Your task to perform on an android device: What's the weather going to be this weekend? Image 0: 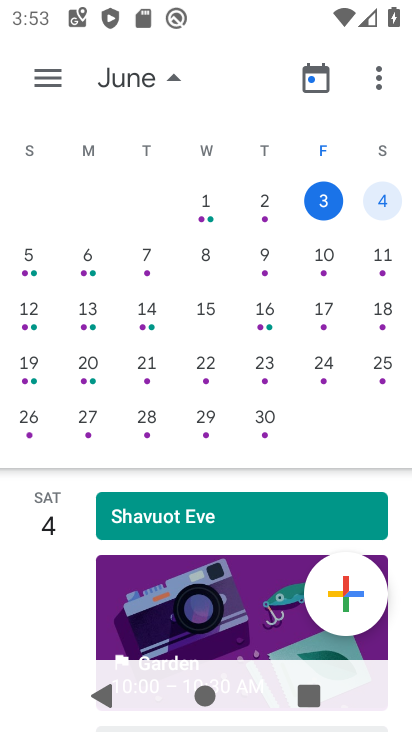
Step 0: press home button
Your task to perform on an android device: What's the weather going to be this weekend? Image 1: 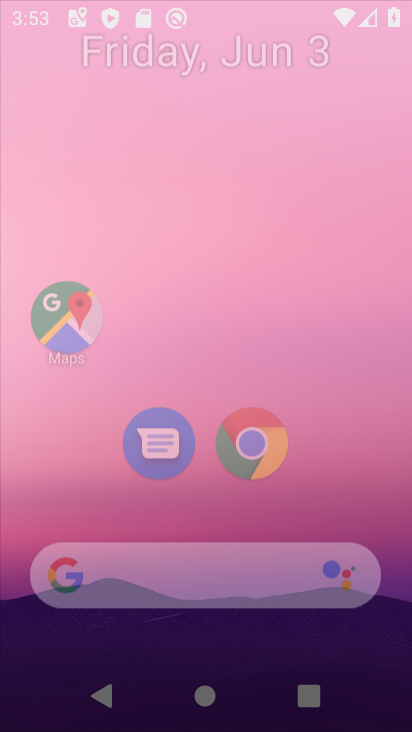
Step 1: drag from (189, 605) to (302, 64)
Your task to perform on an android device: What's the weather going to be this weekend? Image 2: 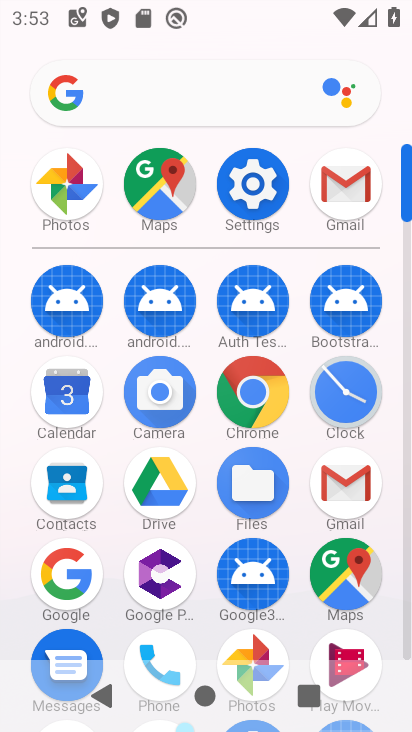
Step 2: click (136, 108)
Your task to perform on an android device: What's the weather going to be this weekend? Image 3: 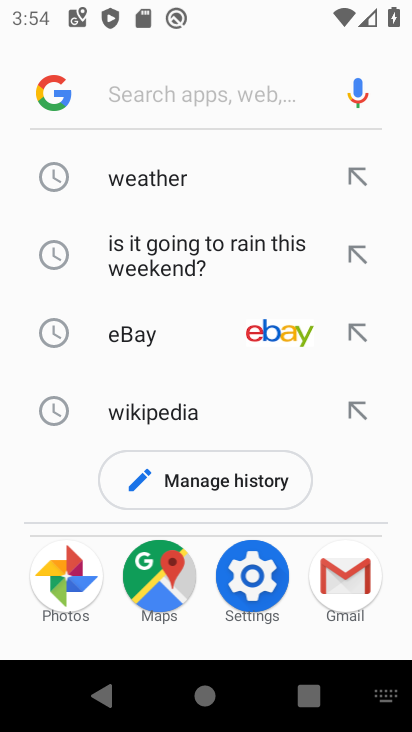
Step 3: type "weather going to be this weekend?"
Your task to perform on an android device: What's the weather going to be this weekend? Image 4: 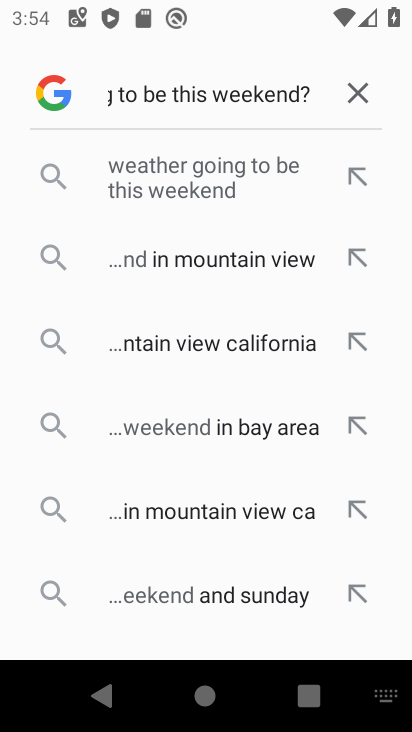
Step 4: click (175, 159)
Your task to perform on an android device: What's the weather going to be this weekend? Image 5: 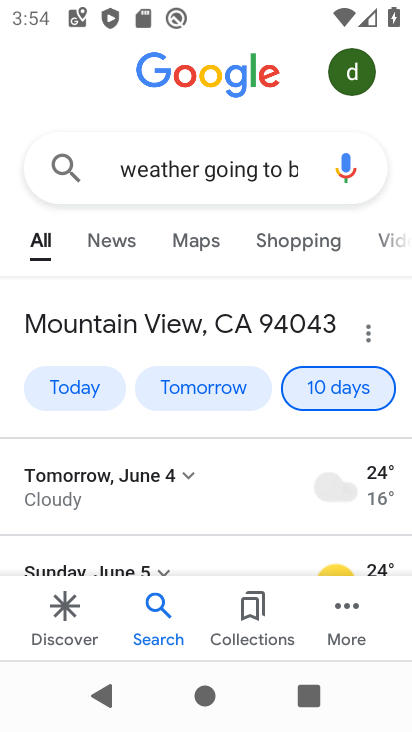
Step 5: task complete